Your task to perform on an android device: Search for Italian restaurants on Maps Image 0: 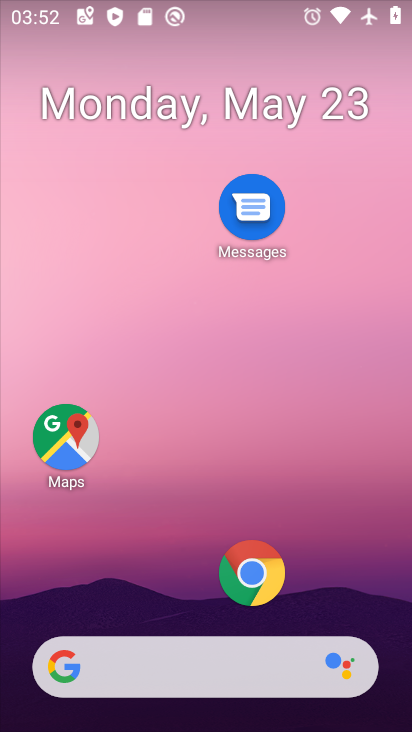
Step 0: drag from (167, 596) to (225, 15)
Your task to perform on an android device: Search for Italian restaurants on Maps Image 1: 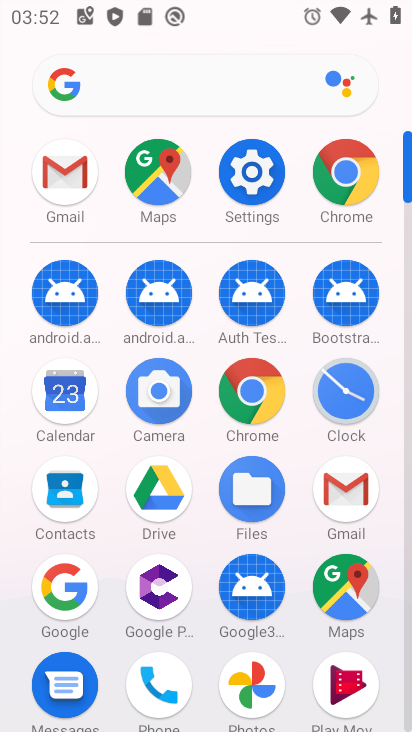
Step 1: click (345, 588)
Your task to perform on an android device: Search for Italian restaurants on Maps Image 2: 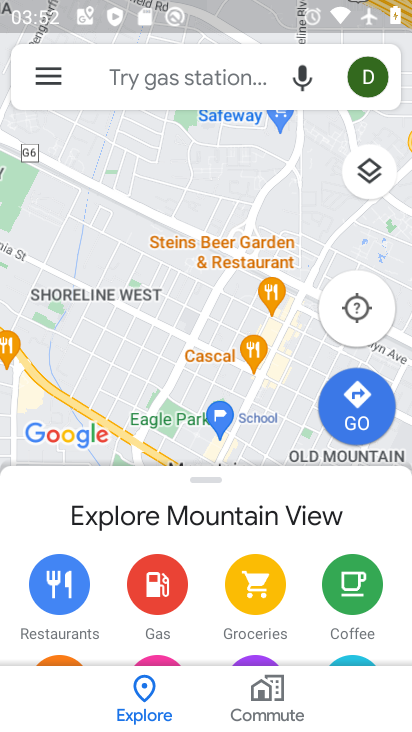
Step 2: click (196, 70)
Your task to perform on an android device: Search for Italian restaurants on Maps Image 3: 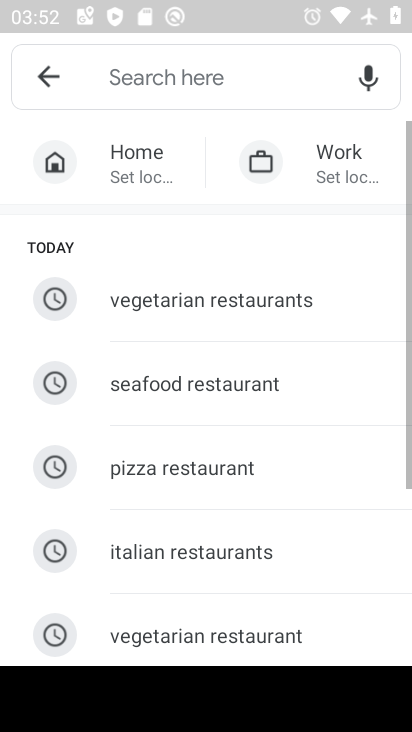
Step 3: click (221, 560)
Your task to perform on an android device: Search for Italian restaurants on Maps Image 4: 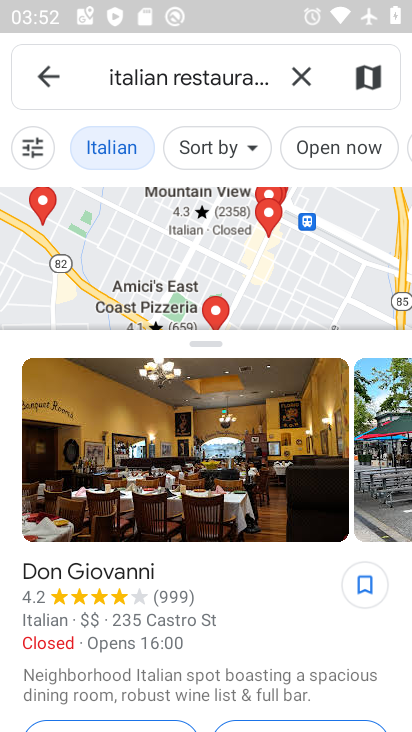
Step 4: task complete